Your task to perform on an android device: choose inbox layout in the gmail app Image 0: 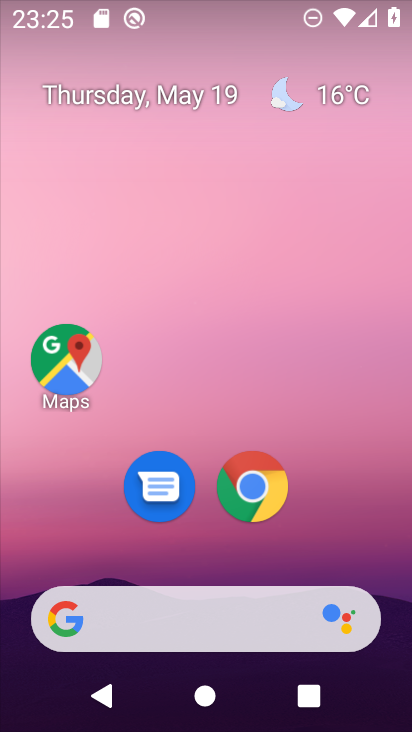
Step 0: drag from (362, 556) to (291, 211)
Your task to perform on an android device: choose inbox layout in the gmail app Image 1: 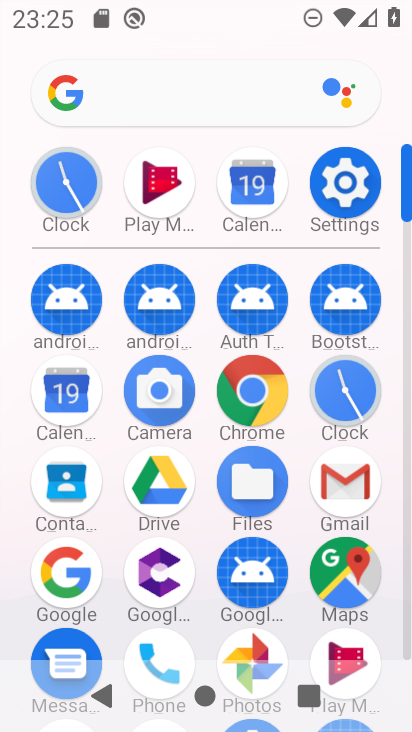
Step 1: click (323, 486)
Your task to perform on an android device: choose inbox layout in the gmail app Image 2: 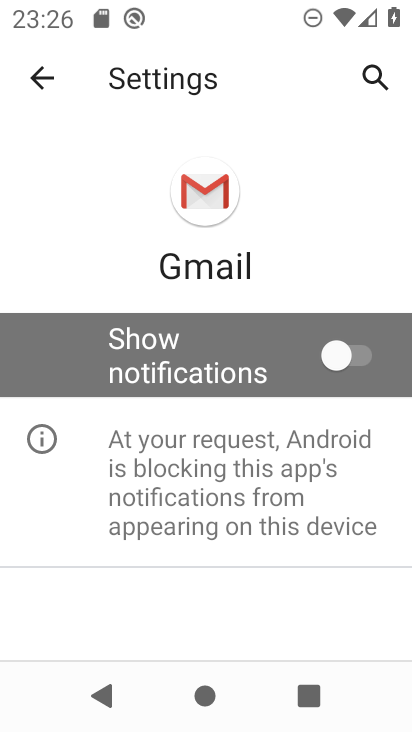
Step 2: click (46, 74)
Your task to perform on an android device: choose inbox layout in the gmail app Image 3: 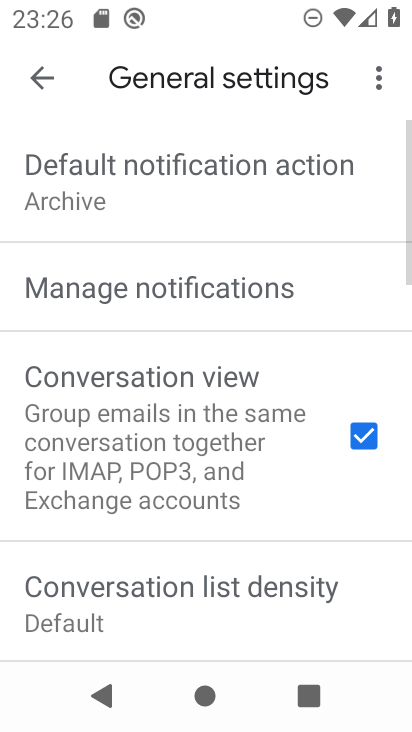
Step 3: click (46, 74)
Your task to perform on an android device: choose inbox layout in the gmail app Image 4: 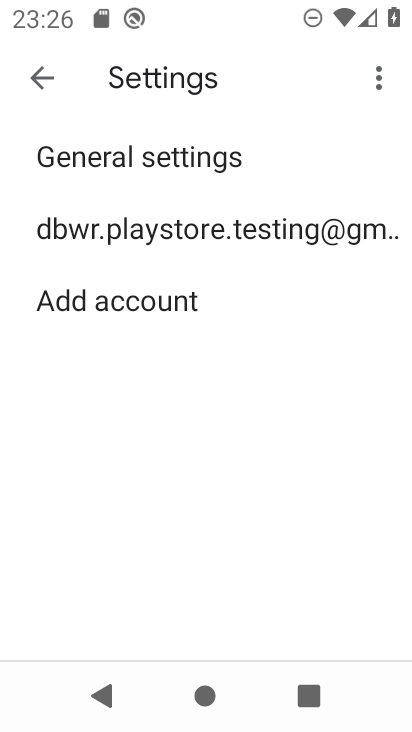
Step 4: click (46, 74)
Your task to perform on an android device: choose inbox layout in the gmail app Image 5: 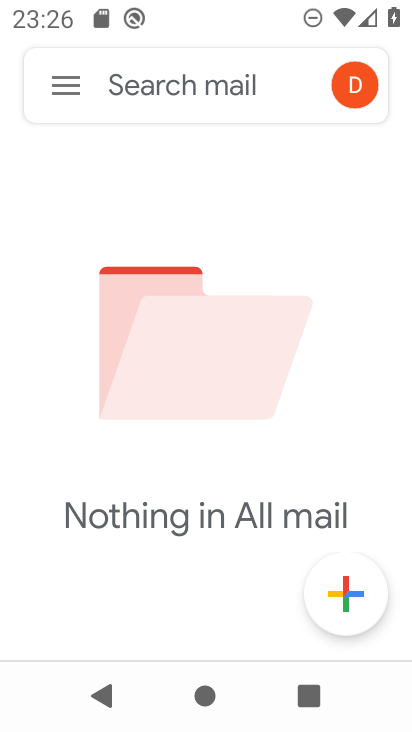
Step 5: click (46, 74)
Your task to perform on an android device: choose inbox layout in the gmail app Image 6: 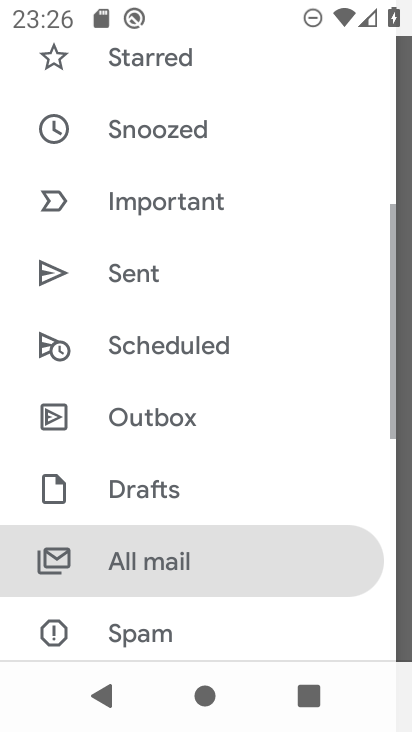
Step 6: drag from (133, 143) to (40, 533)
Your task to perform on an android device: choose inbox layout in the gmail app Image 7: 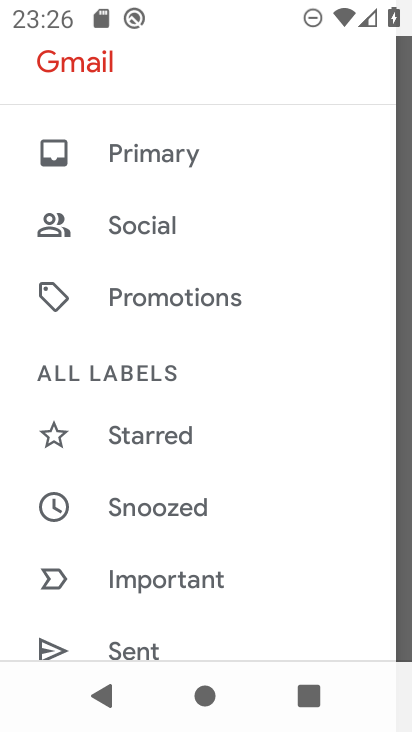
Step 7: click (128, 173)
Your task to perform on an android device: choose inbox layout in the gmail app Image 8: 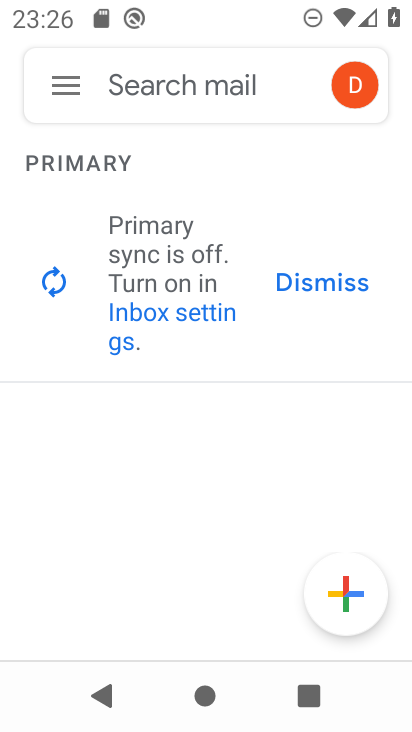
Step 8: task complete